Your task to perform on an android device: turn off javascript in the chrome app Image 0: 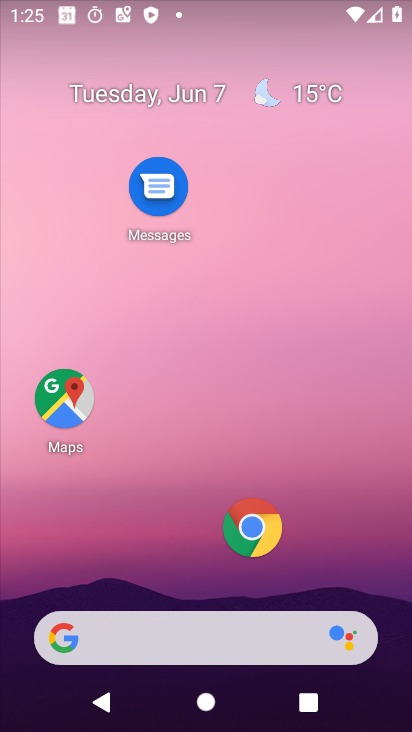
Step 0: click (267, 524)
Your task to perform on an android device: turn off javascript in the chrome app Image 1: 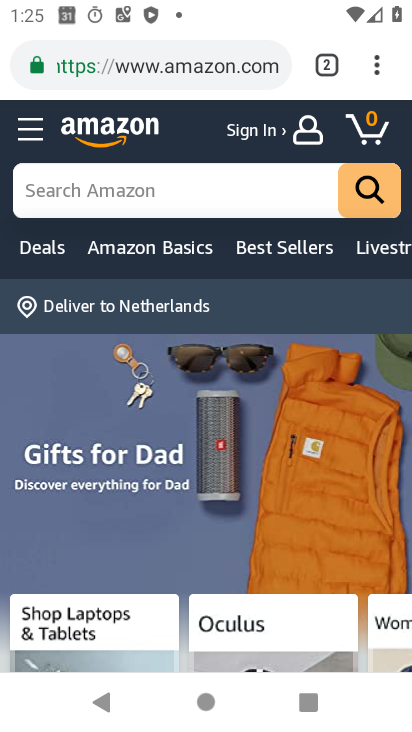
Step 1: click (381, 61)
Your task to perform on an android device: turn off javascript in the chrome app Image 2: 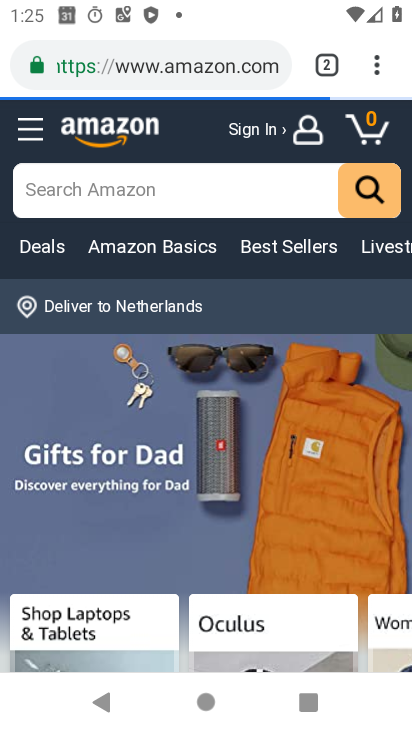
Step 2: click (369, 67)
Your task to perform on an android device: turn off javascript in the chrome app Image 3: 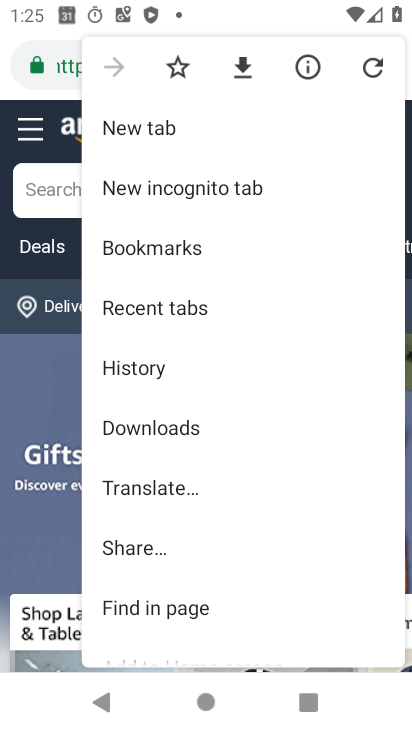
Step 3: drag from (190, 598) to (184, 146)
Your task to perform on an android device: turn off javascript in the chrome app Image 4: 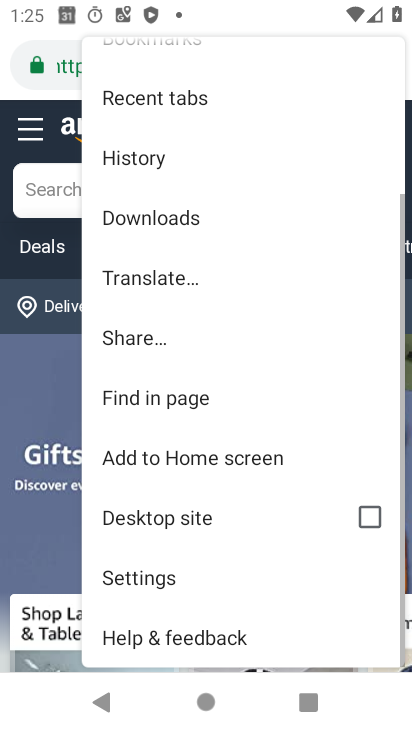
Step 4: click (131, 564)
Your task to perform on an android device: turn off javascript in the chrome app Image 5: 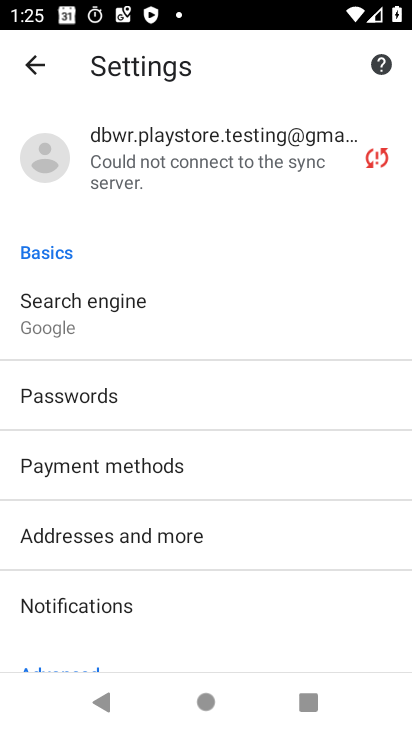
Step 5: drag from (182, 615) to (179, 252)
Your task to perform on an android device: turn off javascript in the chrome app Image 6: 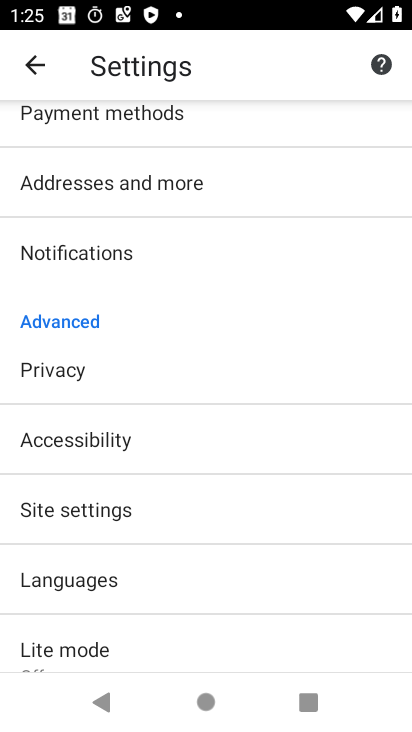
Step 6: click (95, 508)
Your task to perform on an android device: turn off javascript in the chrome app Image 7: 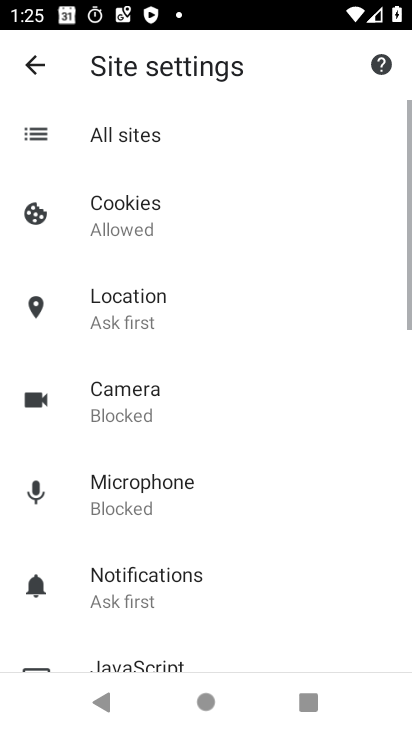
Step 7: drag from (163, 642) to (199, 316)
Your task to perform on an android device: turn off javascript in the chrome app Image 8: 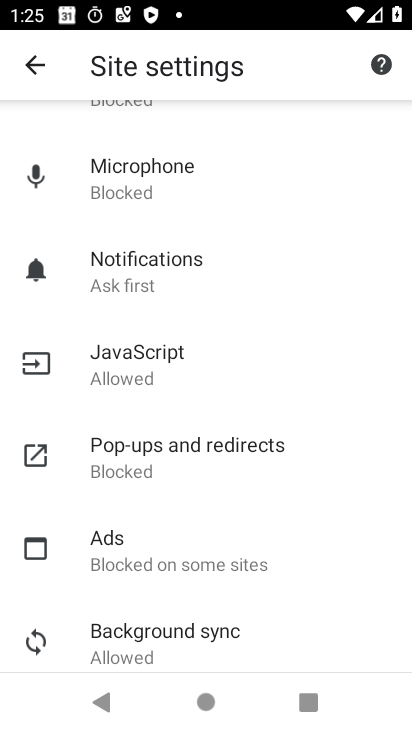
Step 8: click (151, 378)
Your task to perform on an android device: turn off javascript in the chrome app Image 9: 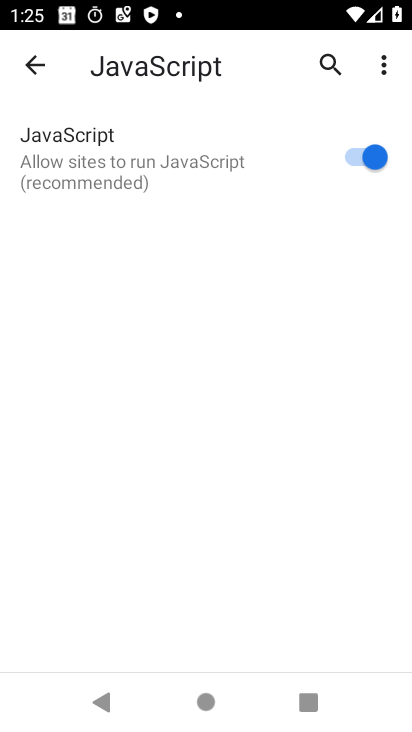
Step 9: click (352, 153)
Your task to perform on an android device: turn off javascript in the chrome app Image 10: 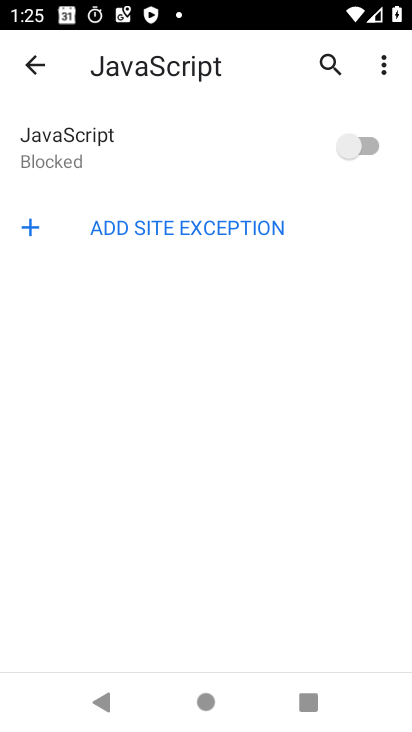
Step 10: task complete